Your task to perform on an android device: Go to ESPN.com Image 0: 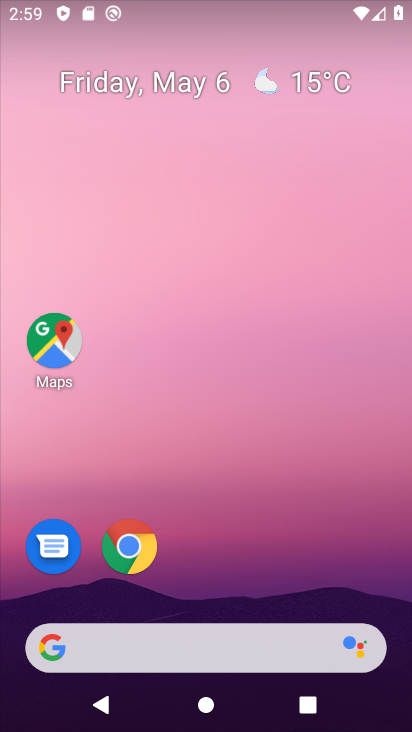
Step 0: click (140, 550)
Your task to perform on an android device: Go to ESPN.com Image 1: 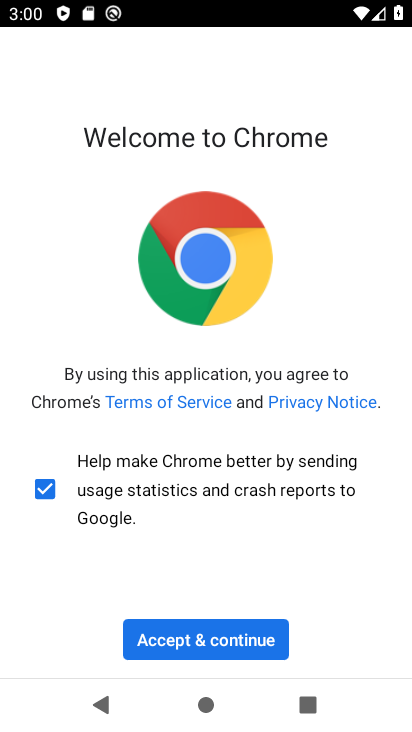
Step 1: click (185, 651)
Your task to perform on an android device: Go to ESPN.com Image 2: 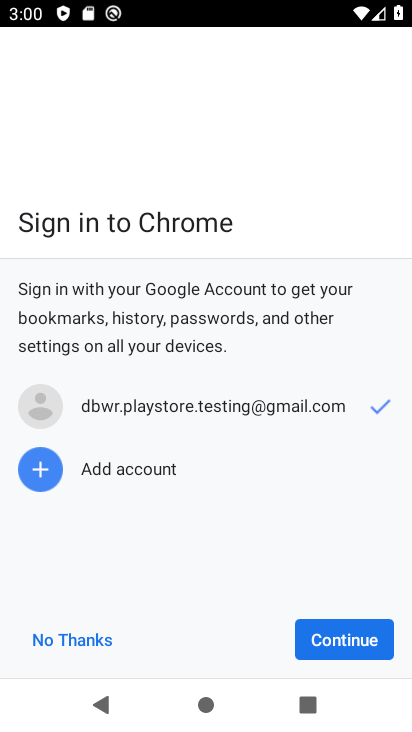
Step 2: click (314, 641)
Your task to perform on an android device: Go to ESPN.com Image 3: 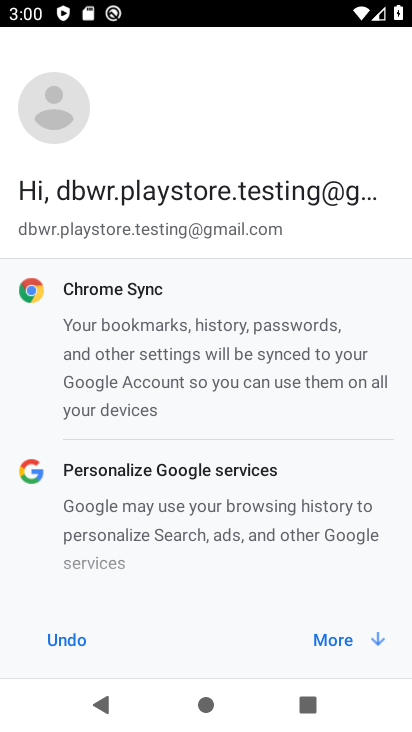
Step 3: click (332, 645)
Your task to perform on an android device: Go to ESPN.com Image 4: 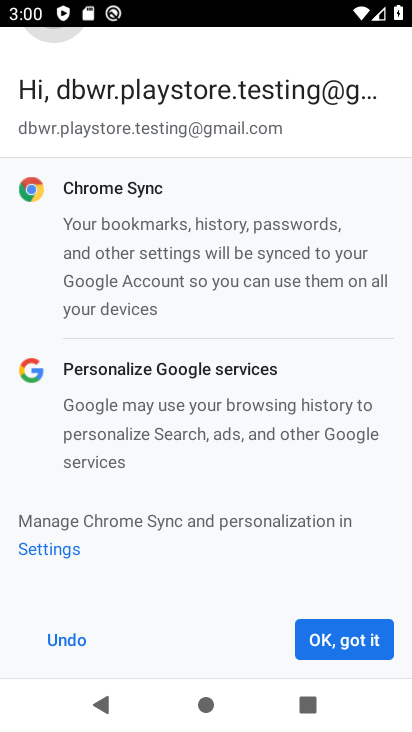
Step 4: click (332, 645)
Your task to perform on an android device: Go to ESPN.com Image 5: 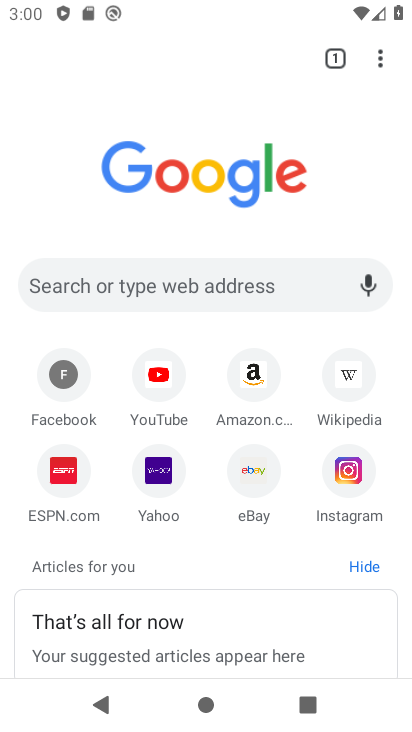
Step 5: click (72, 478)
Your task to perform on an android device: Go to ESPN.com Image 6: 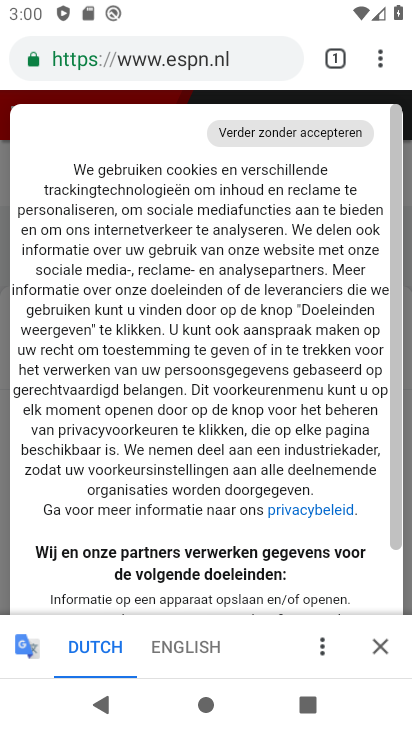
Step 6: task complete